Your task to perform on an android device: Toggle the flashlight Image 0: 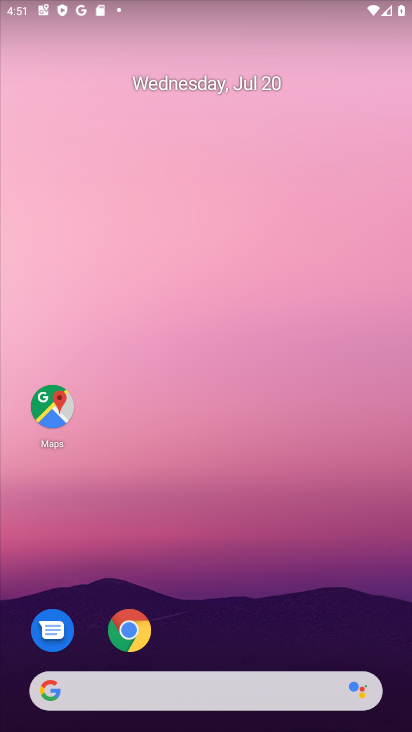
Step 0: drag from (241, 689) to (185, 232)
Your task to perform on an android device: Toggle the flashlight Image 1: 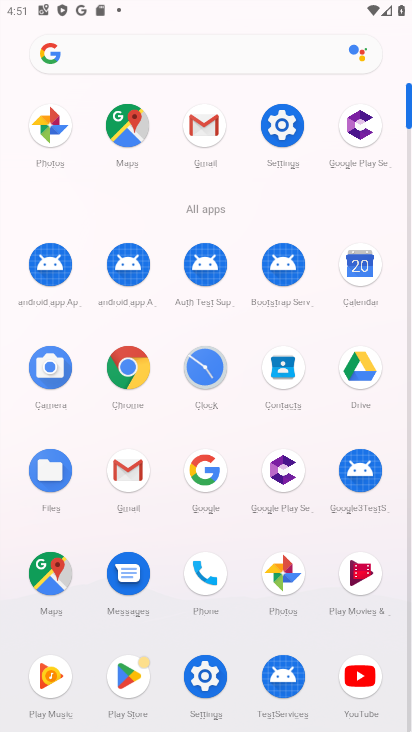
Step 1: click (282, 127)
Your task to perform on an android device: Toggle the flashlight Image 2: 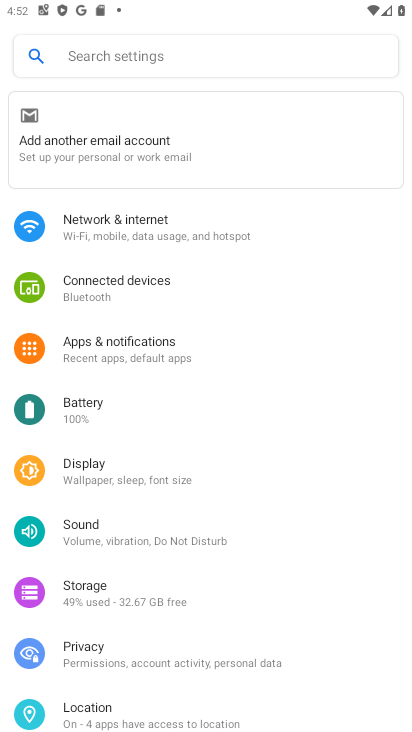
Step 2: click (90, 476)
Your task to perform on an android device: Toggle the flashlight Image 3: 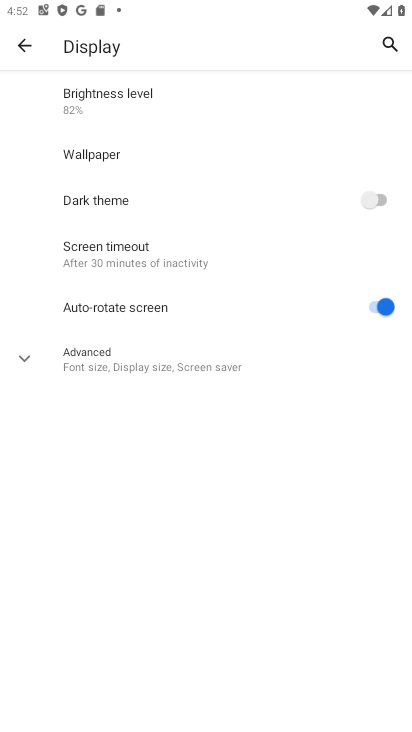
Step 3: press back button
Your task to perform on an android device: Toggle the flashlight Image 4: 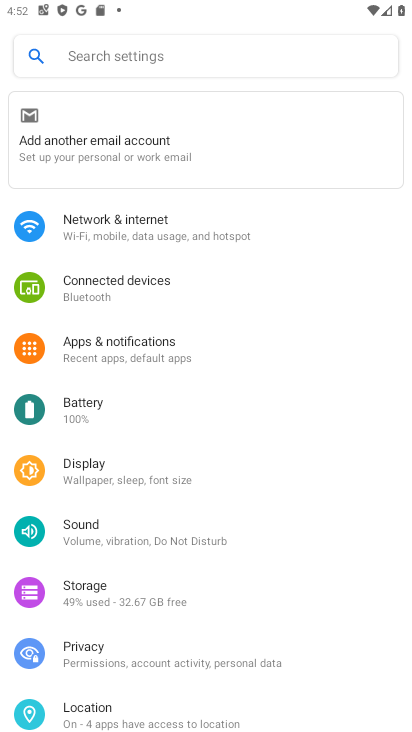
Step 4: drag from (158, 612) to (193, 440)
Your task to perform on an android device: Toggle the flashlight Image 5: 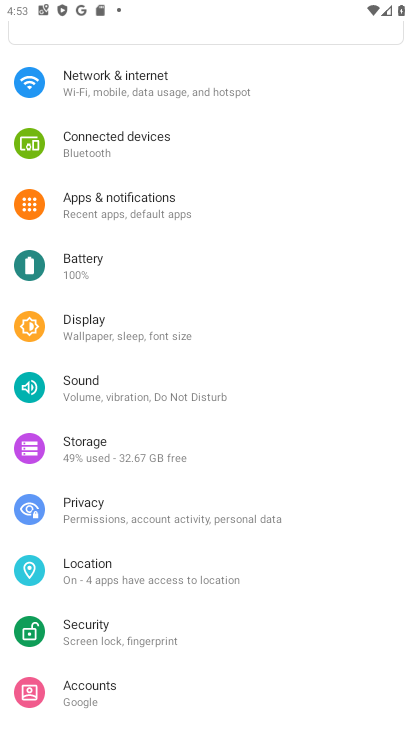
Step 5: click (154, 328)
Your task to perform on an android device: Toggle the flashlight Image 6: 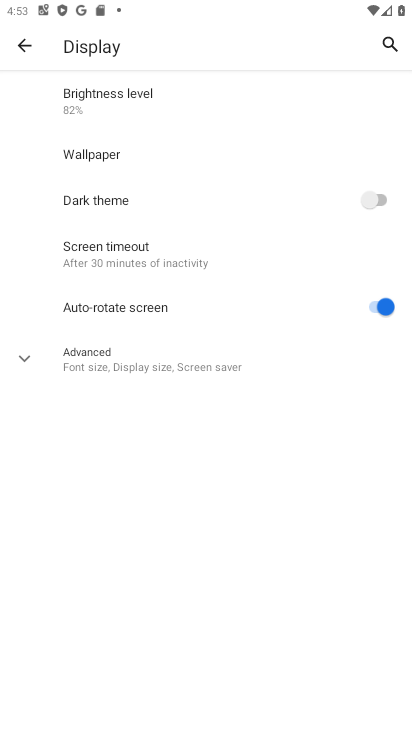
Step 6: task complete